Your task to perform on an android device: Go to internet settings Image 0: 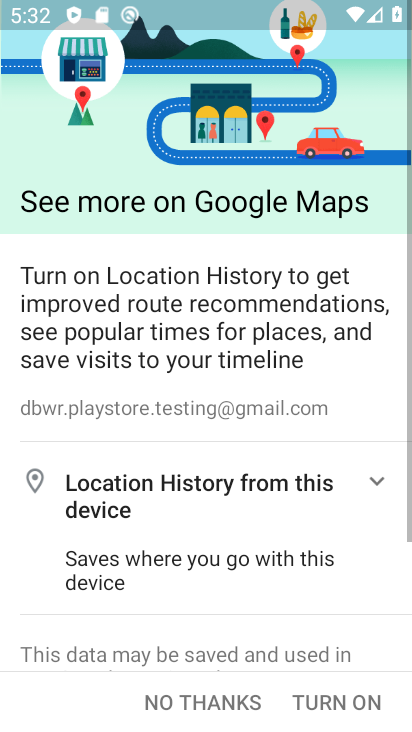
Step 0: press home button
Your task to perform on an android device: Go to internet settings Image 1: 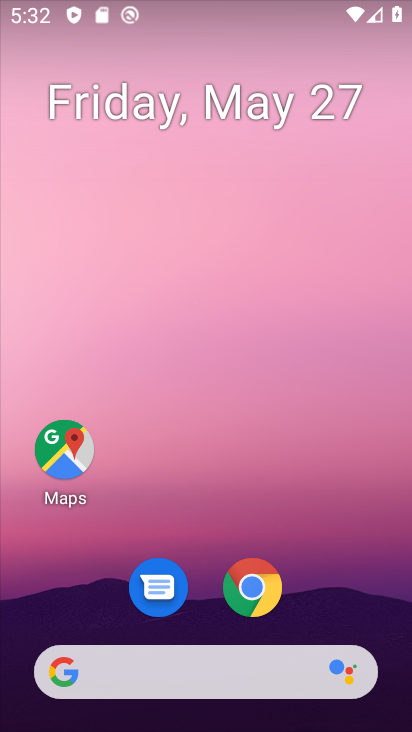
Step 1: drag from (249, 516) to (192, 13)
Your task to perform on an android device: Go to internet settings Image 2: 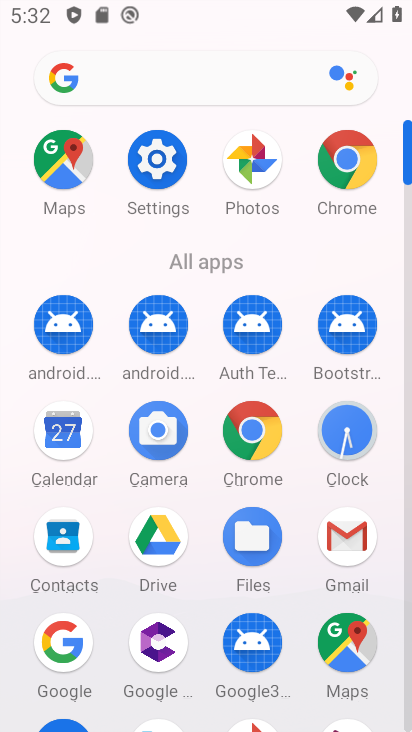
Step 2: click (165, 166)
Your task to perform on an android device: Go to internet settings Image 3: 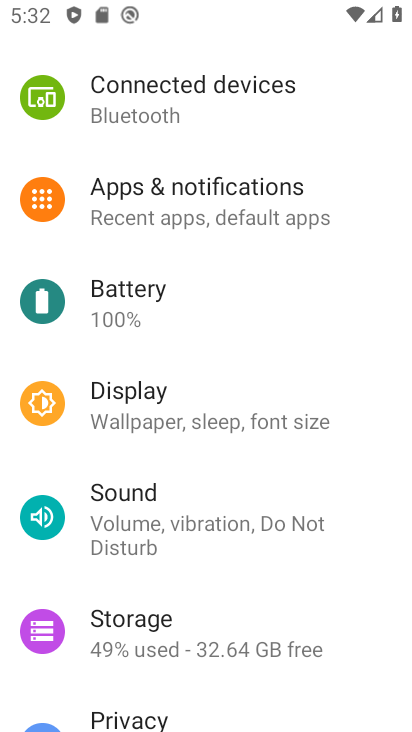
Step 3: drag from (155, 73) to (133, 387)
Your task to perform on an android device: Go to internet settings Image 4: 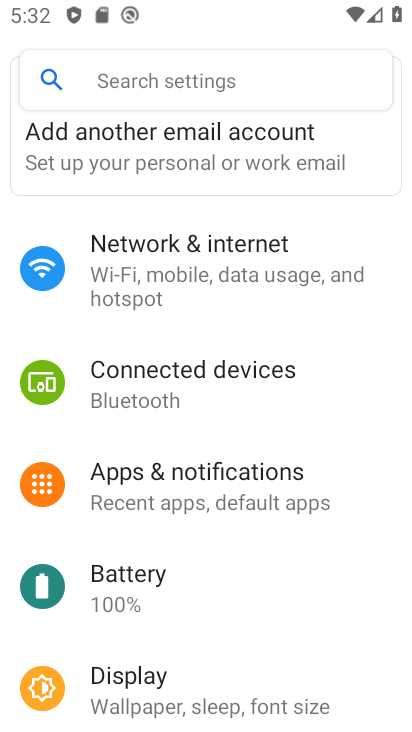
Step 4: drag from (142, 142) to (123, 316)
Your task to perform on an android device: Go to internet settings Image 5: 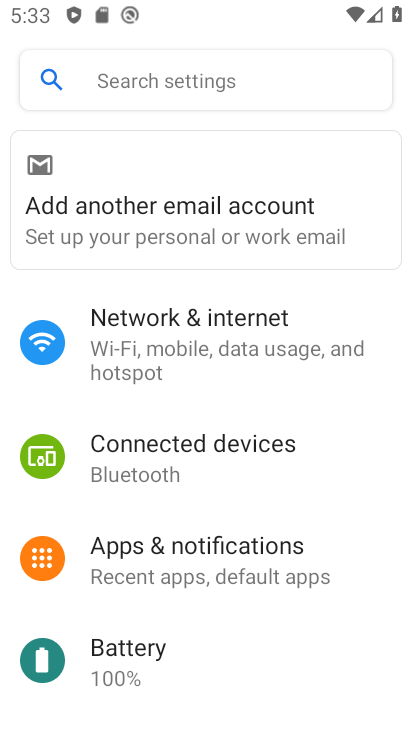
Step 5: click (216, 312)
Your task to perform on an android device: Go to internet settings Image 6: 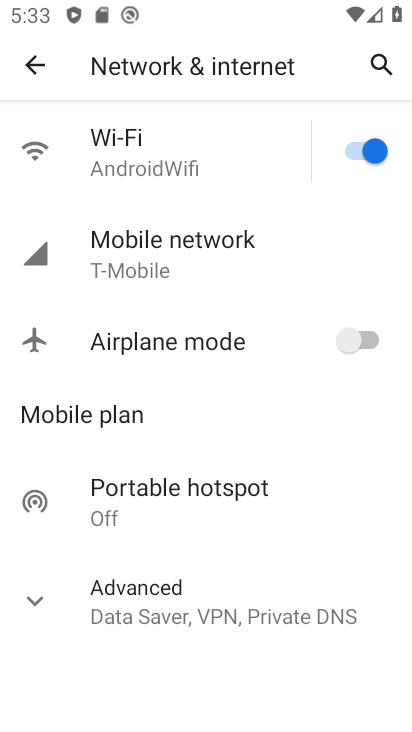
Step 6: task complete